Your task to perform on an android device: Do I have any events tomorrow? Image 0: 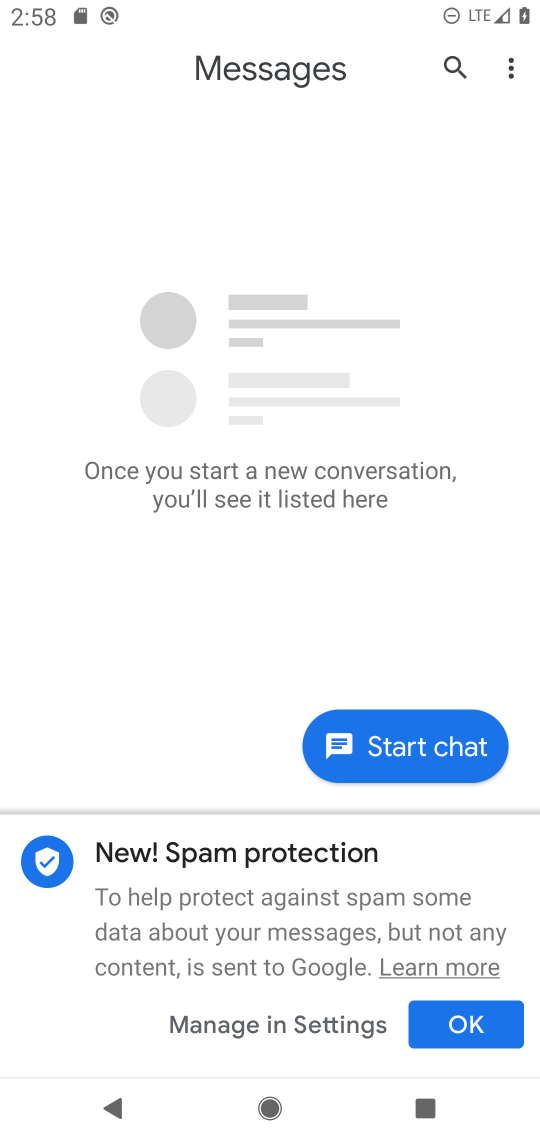
Step 0: press home button
Your task to perform on an android device: Do I have any events tomorrow? Image 1: 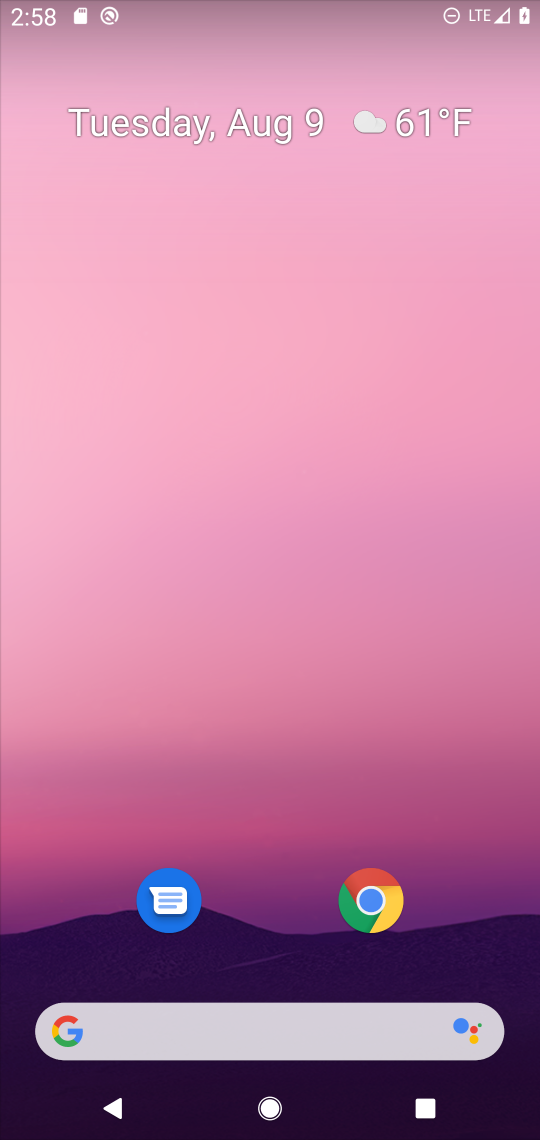
Step 1: drag from (274, 923) to (301, 349)
Your task to perform on an android device: Do I have any events tomorrow? Image 2: 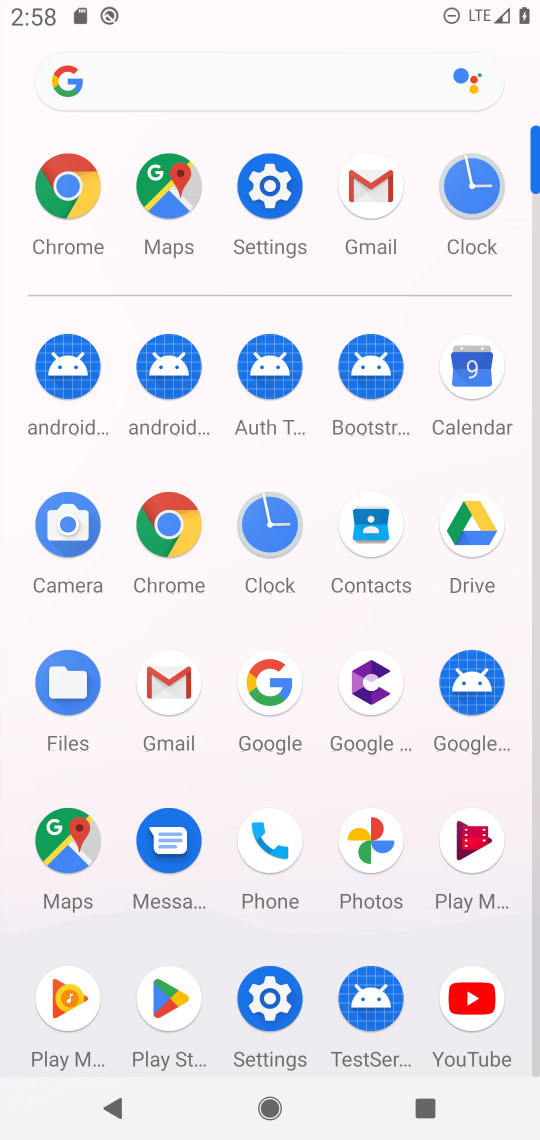
Step 2: click (465, 382)
Your task to perform on an android device: Do I have any events tomorrow? Image 3: 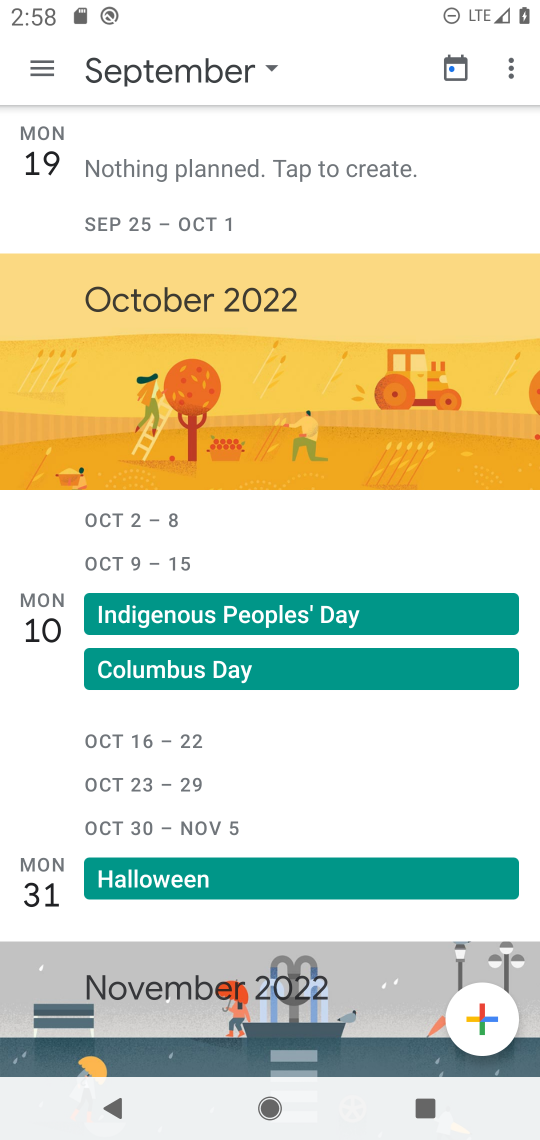
Step 3: drag from (282, 235) to (282, 462)
Your task to perform on an android device: Do I have any events tomorrow? Image 4: 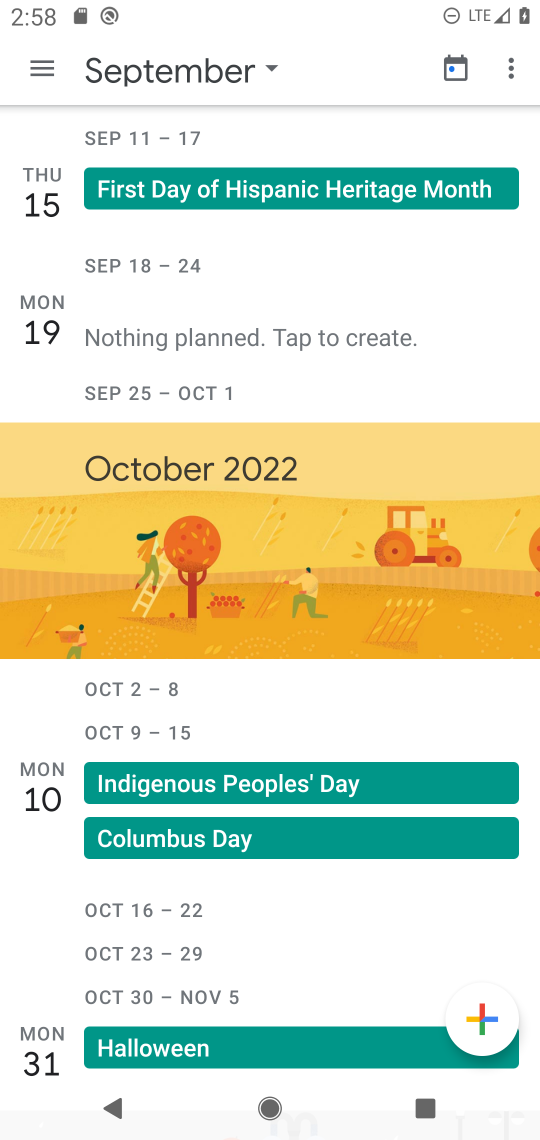
Step 4: drag from (256, 199) to (254, 472)
Your task to perform on an android device: Do I have any events tomorrow? Image 5: 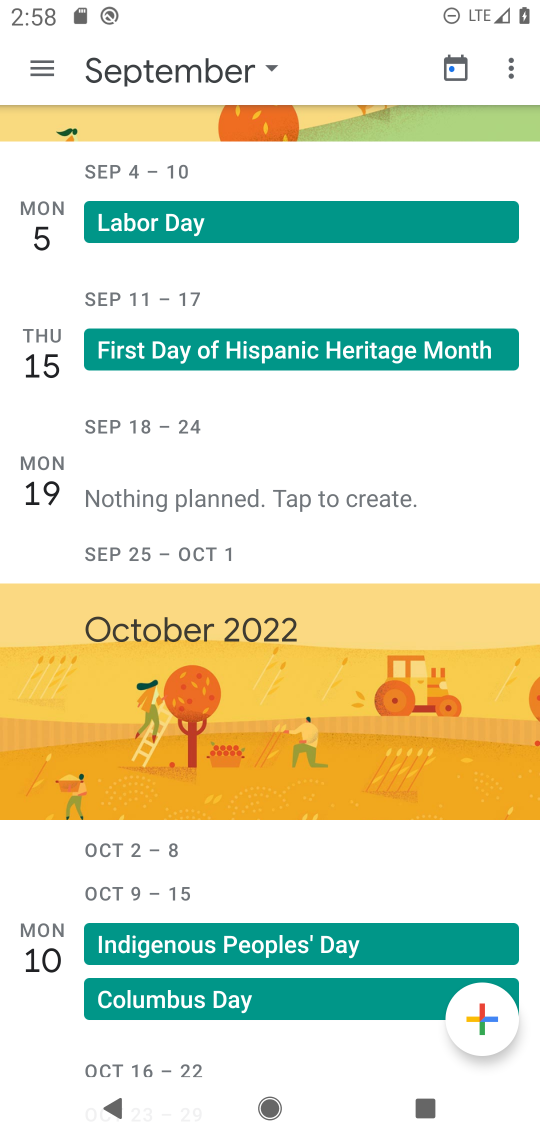
Step 5: drag from (277, 310) to (286, 539)
Your task to perform on an android device: Do I have any events tomorrow? Image 6: 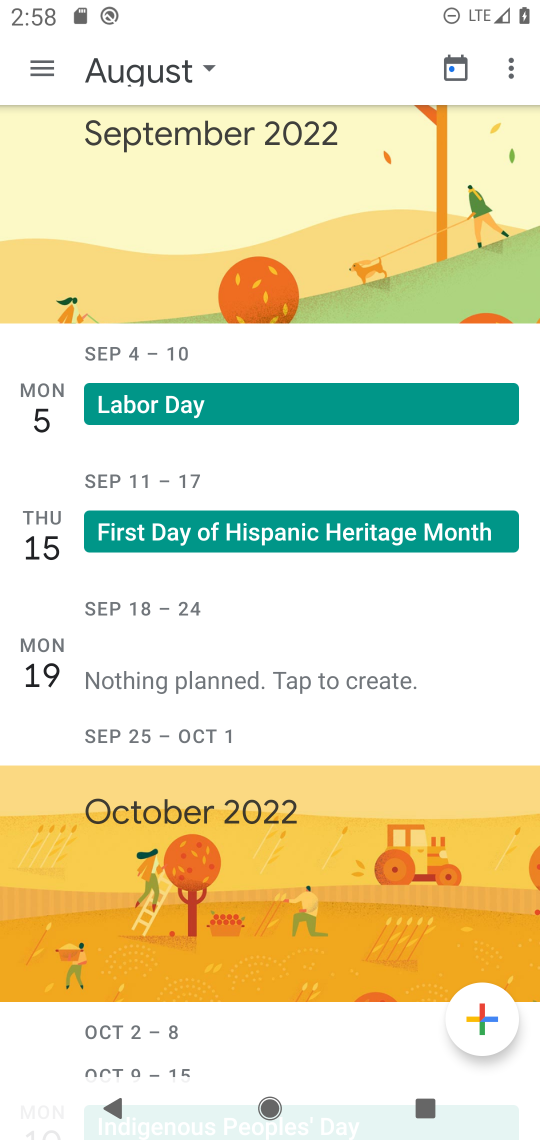
Step 6: drag from (251, 148) to (261, 504)
Your task to perform on an android device: Do I have any events tomorrow? Image 7: 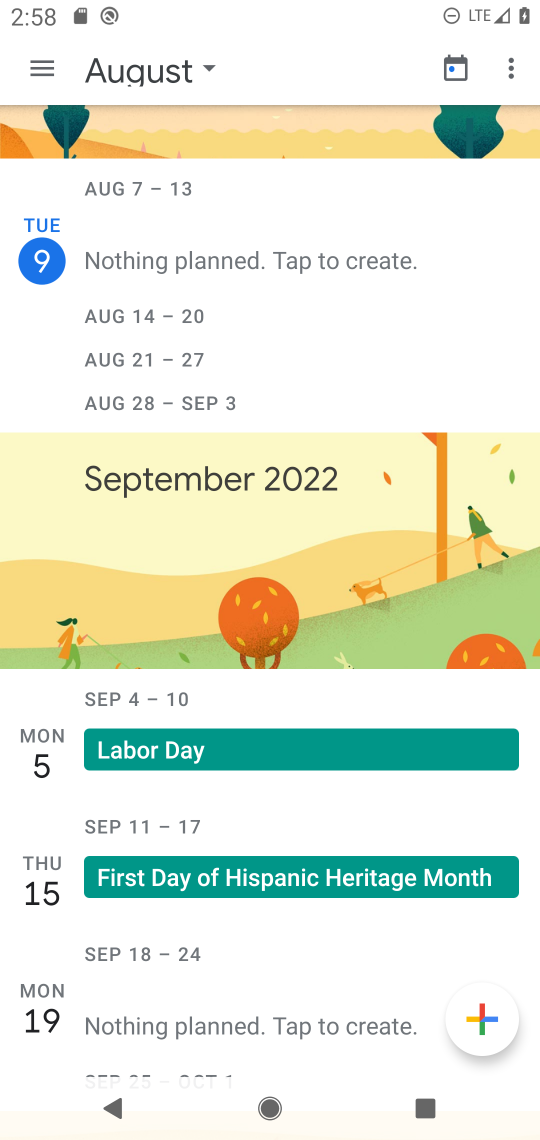
Step 7: click (219, 68)
Your task to perform on an android device: Do I have any events tomorrow? Image 8: 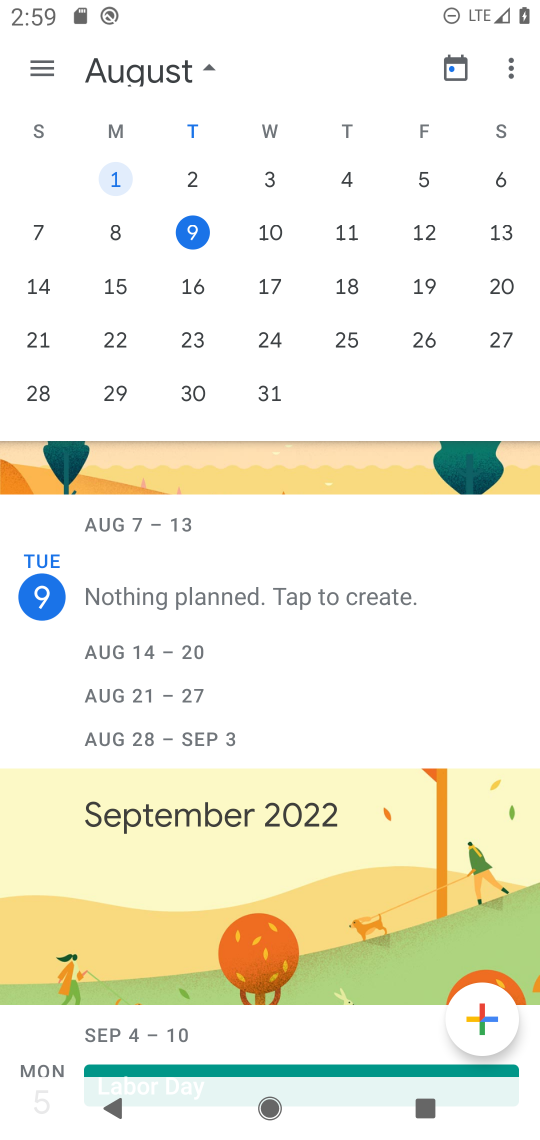
Step 8: click (265, 232)
Your task to perform on an android device: Do I have any events tomorrow? Image 9: 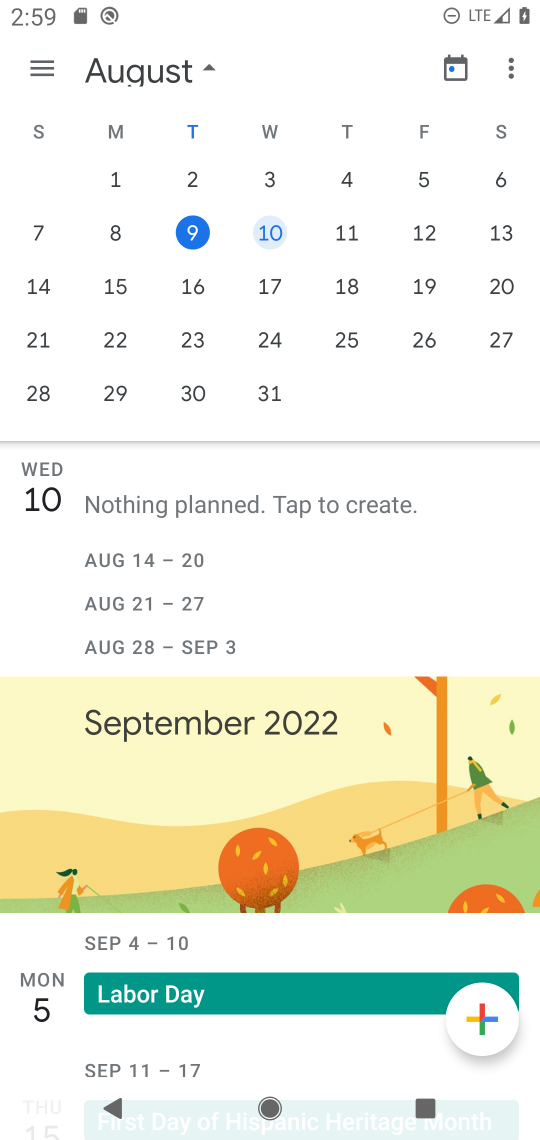
Step 9: task complete